Your task to perform on an android device: Open the calendar app, open the side menu, and click the "Day" option Image 0: 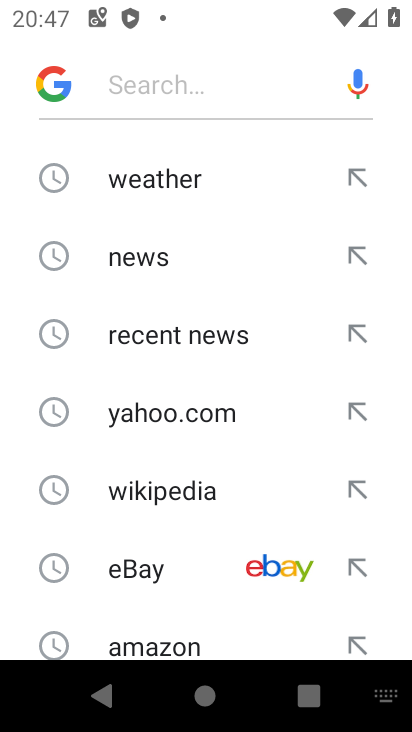
Step 0: press home button
Your task to perform on an android device: Open the calendar app, open the side menu, and click the "Day" option Image 1: 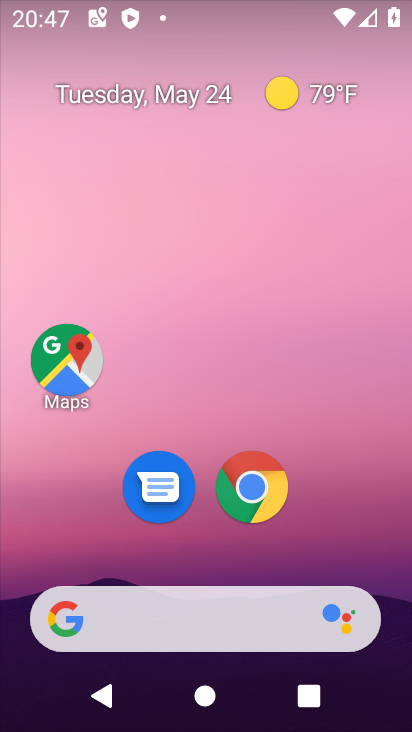
Step 1: drag from (370, 531) to (401, 17)
Your task to perform on an android device: Open the calendar app, open the side menu, and click the "Day" option Image 2: 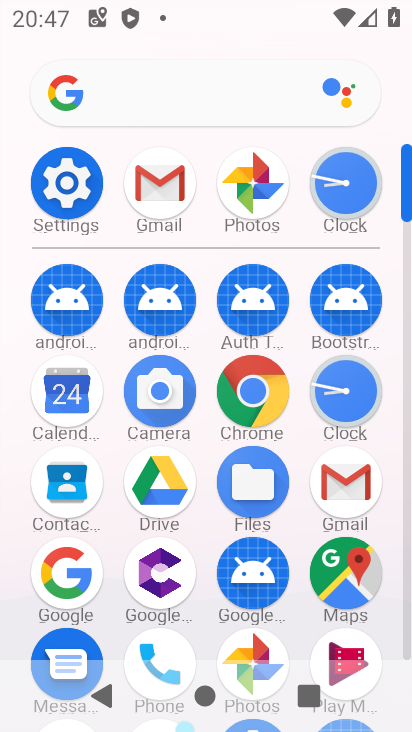
Step 2: click (66, 415)
Your task to perform on an android device: Open the calendar app, open the side menu, and click the "Day" option Image 3: 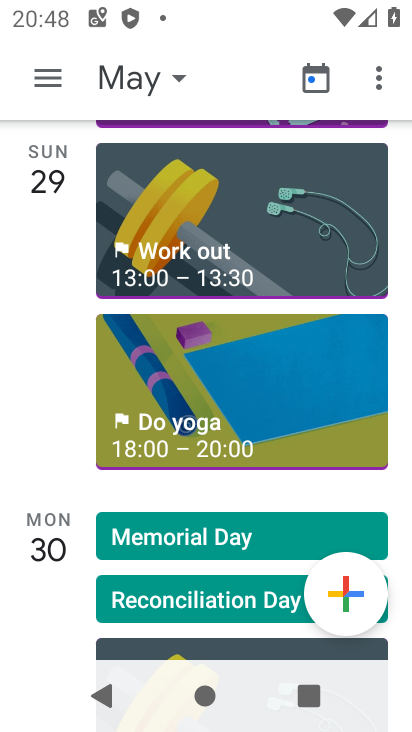
Step 3: click (174, 72)
Your task to perform on an android device: Open the calendar app, open the side menu, and click the "Day" option Image 4: 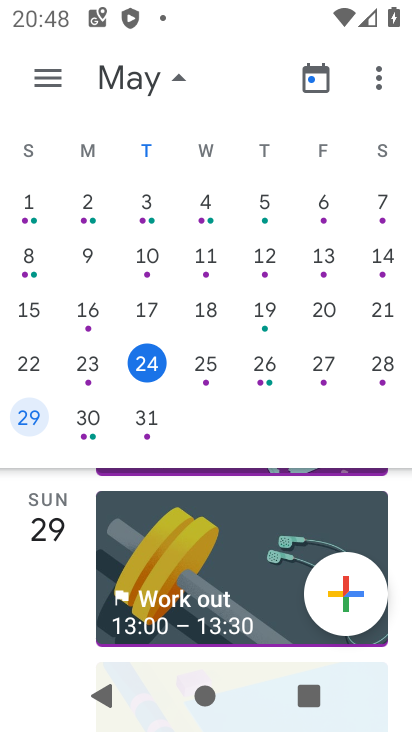
Step 4: click (48, 76)
Your task to perform on an android device: Open the calendar app, open the side menu, and click the "Day" option Image 5: 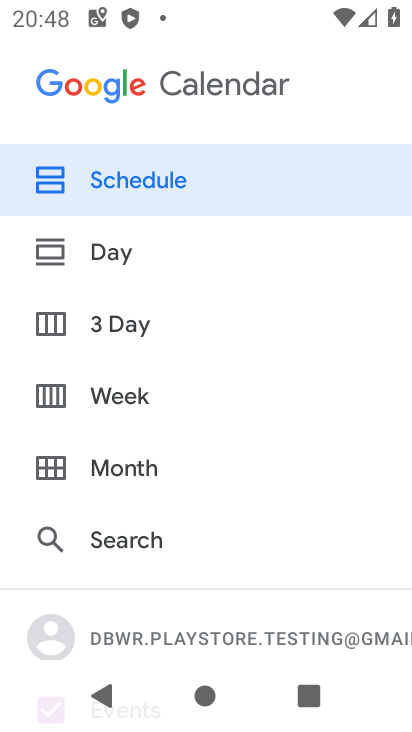
Step 5: click (70, 249)
Your task to perform on an android device: Open the calendar app, open the side menu, and click the "Day" option Image 6: 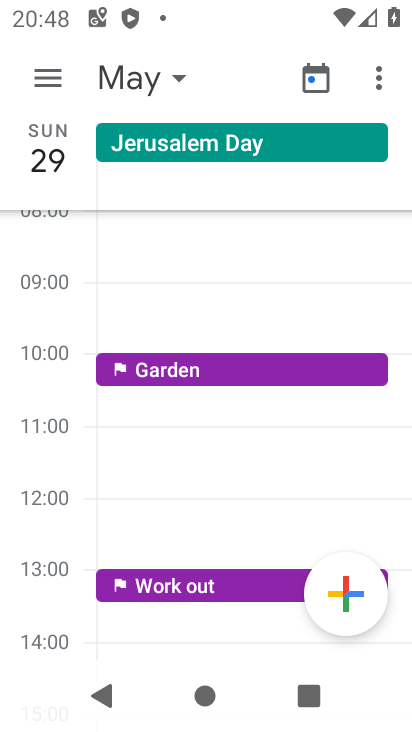
Step 6: task complete